Your task to perform on an android device: Turn on the flashlight Image 0: 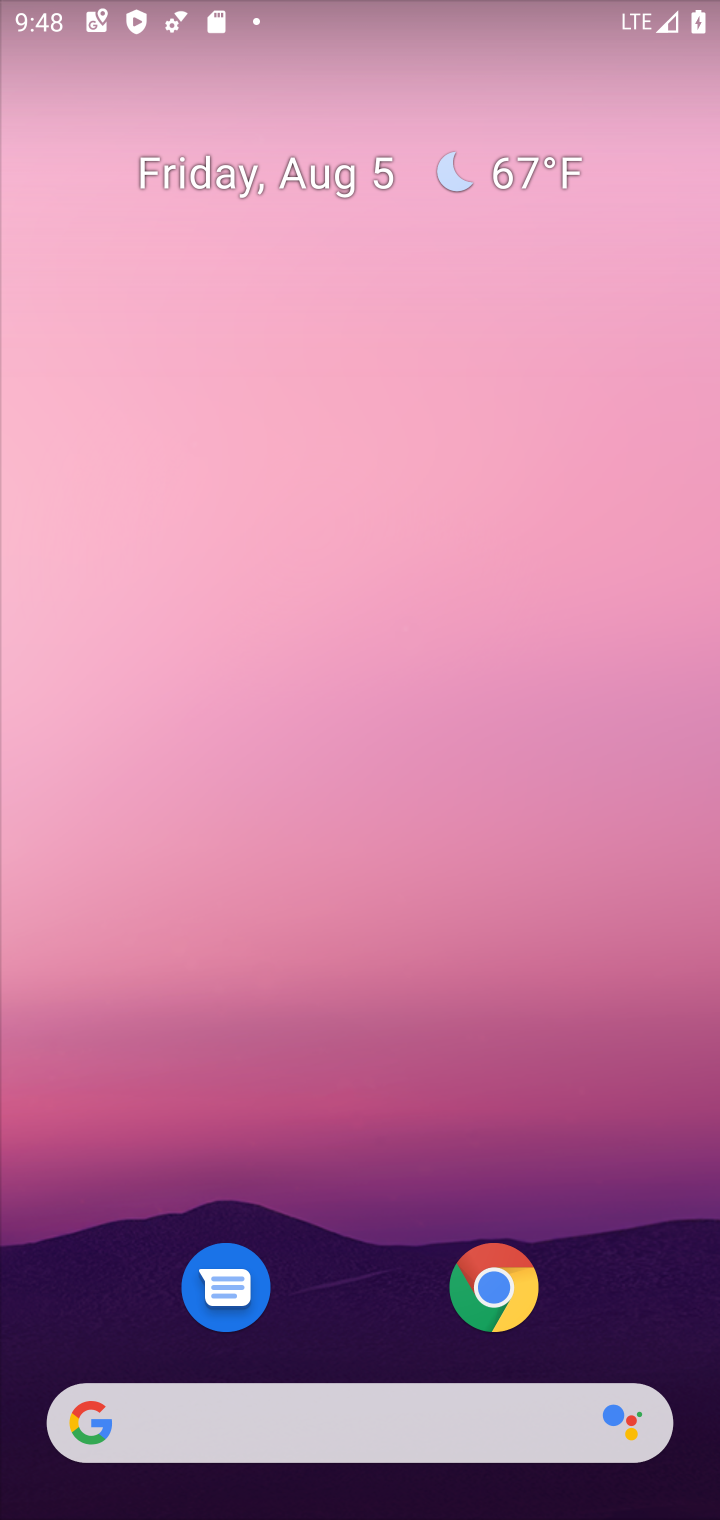
Step 0: drag from (340, 1364) to (340, 244)
Your task to perform on an android device: Turn on the flashlight Image 1: 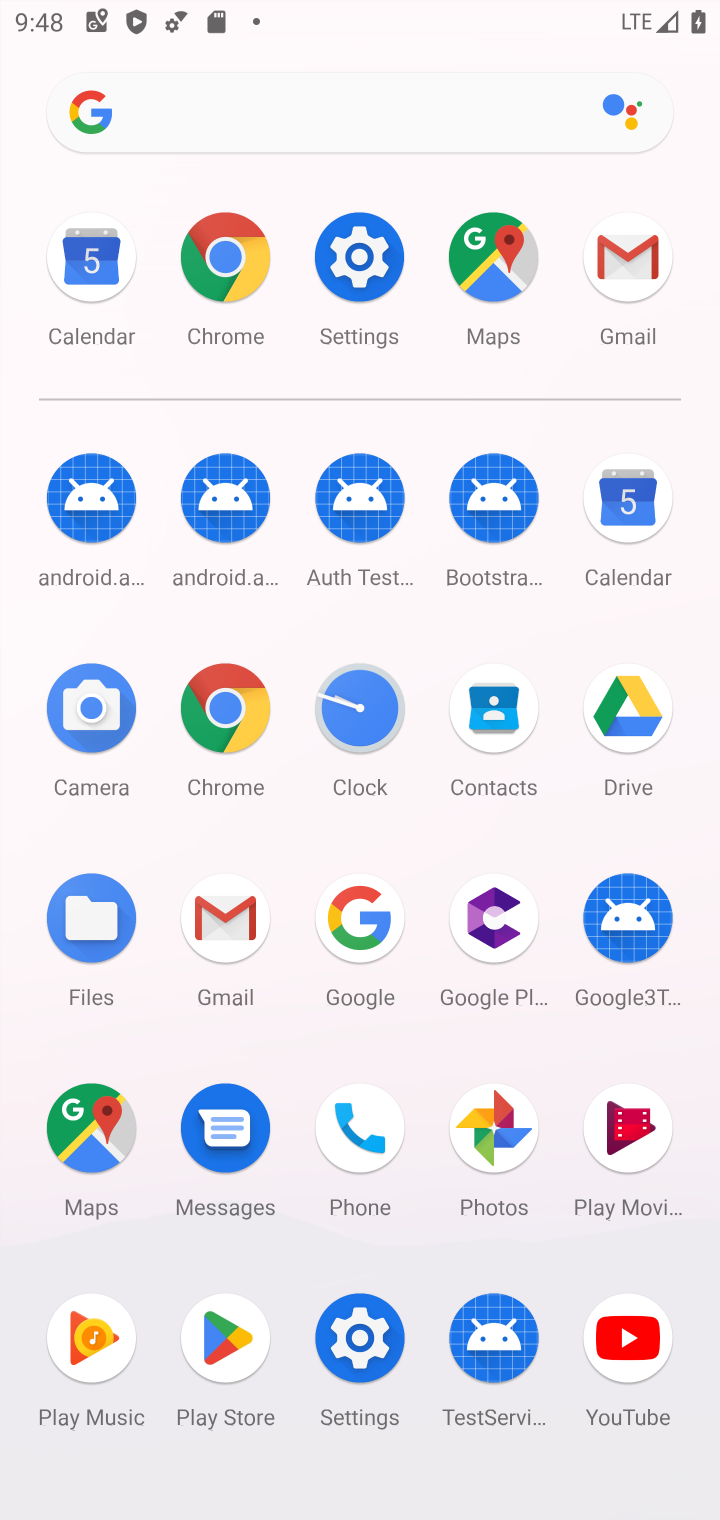
Step 1: click (358, 269)
Your task to perform on an android device: Turn on the flashlight Image 2: 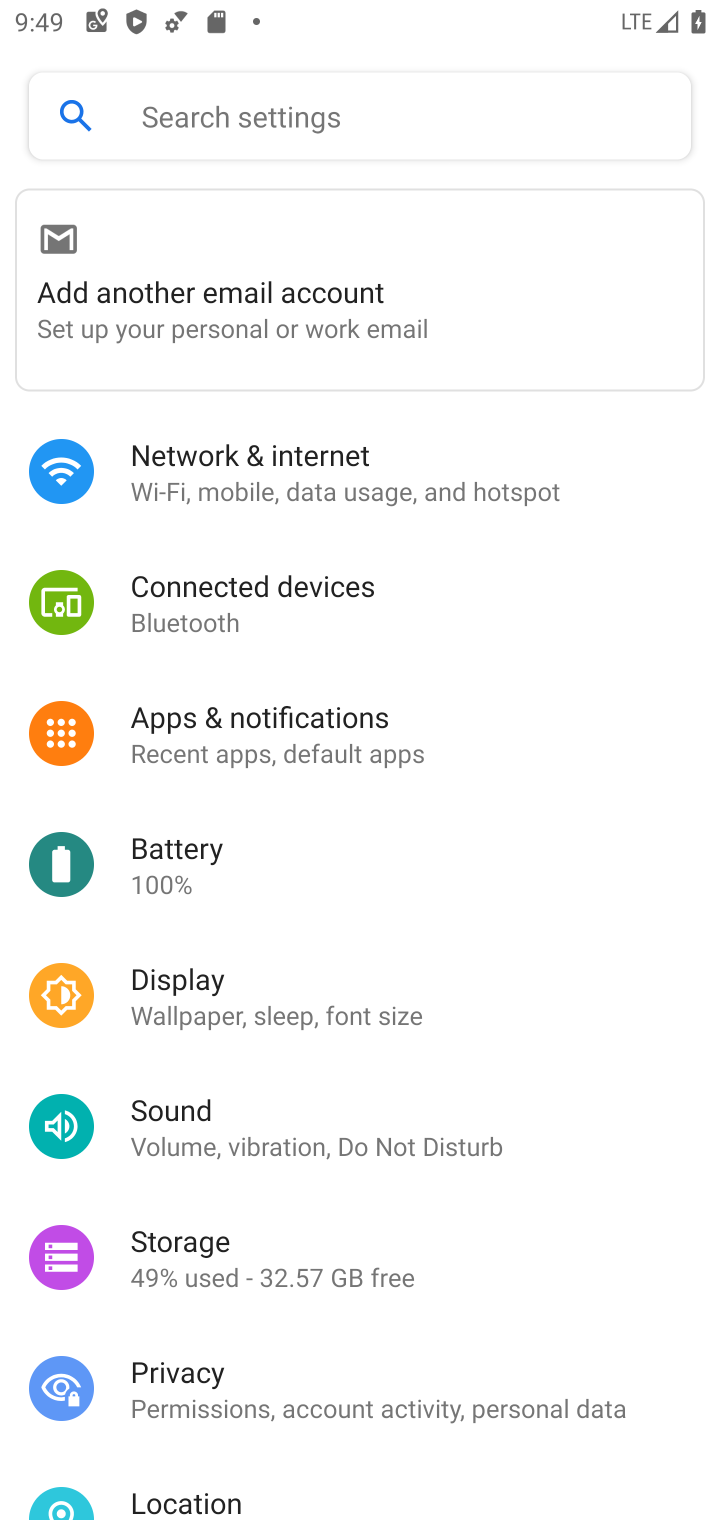
Step 2: task complete